Your task to perform on an android device: Go to battery settings Image 0: 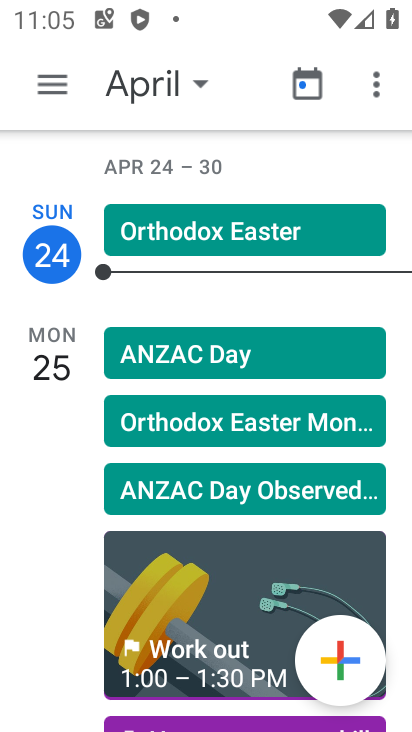
Step 0: press home button
Your task to perform on an android device: Go to battery settings Image 1: 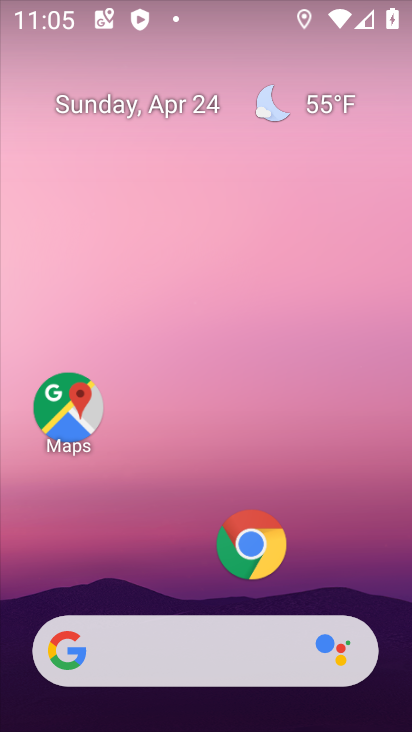
Step 1: drag from (182, 580) to (207, 206)
Your task to perform on an android device: Go to battery settings Image 2: 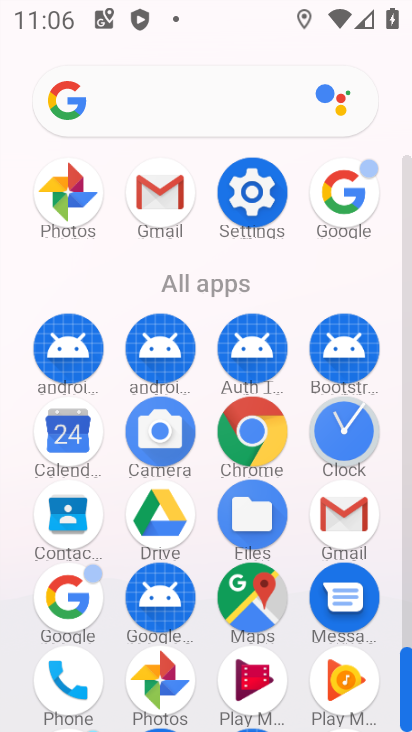
Step 2: click (243, 193)
Your task to perform on an android device: Go to battery settings Image 3: 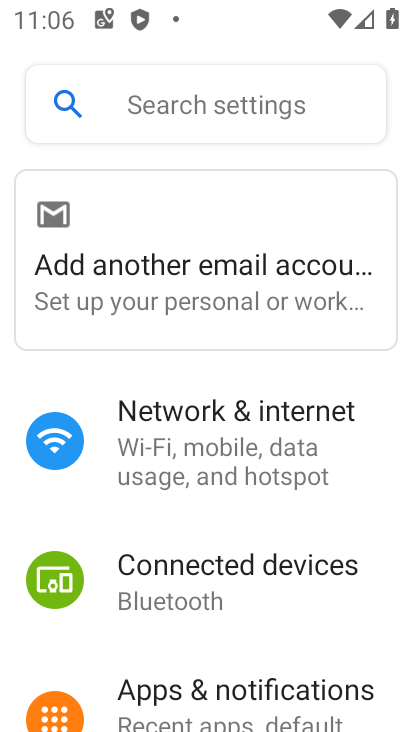
Step 3: drag from (247, 652) to (268, 294)
Your task to perform on an android device: Go to battery settings Image 4: 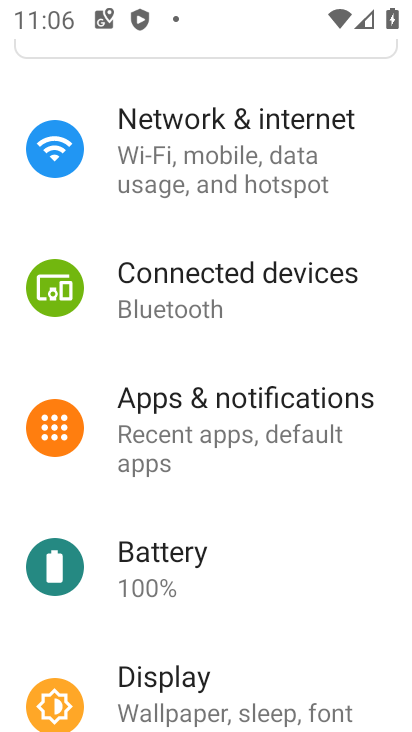
Step 4: click (151, 567)
Your task to perform on an android device: Go to battery settings Image 5: 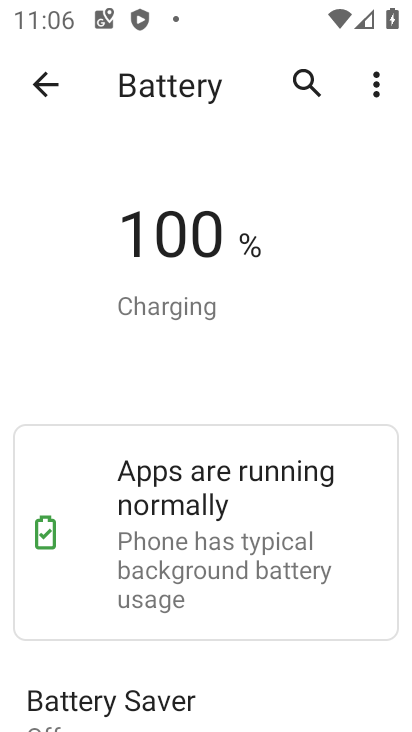
Step 5: task complete